Your task to perform on an android device: visit the assistant section in the google photos Image 0: 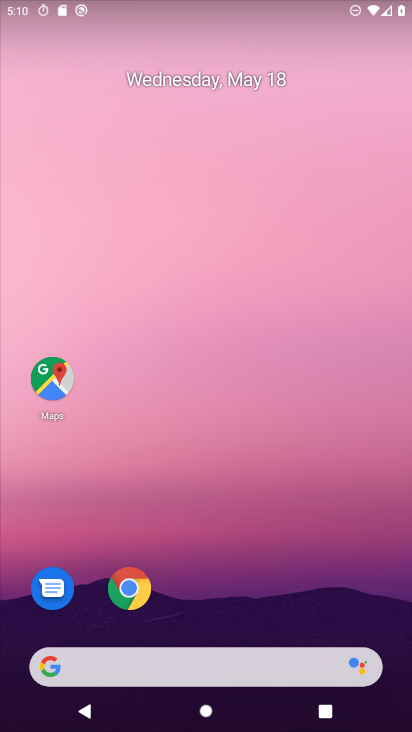
Step 0: drag from (226, 584) to (205, 156)
Your task to perform on an android device: visit the assistant section in the google photos Image 1: 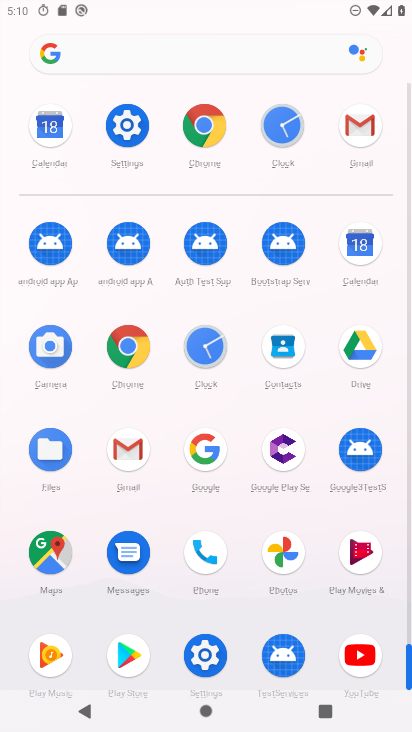
Step 1: click (285, 543)
Your task to perform on an android device: visit the assistant section in the google photos Image 2: 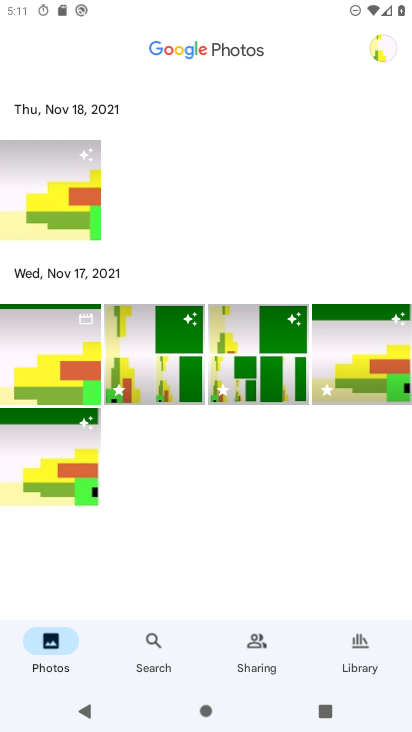
Step 2: task complete